Your task to perform on an android device: Show me popular games on the Play Store Image 0: 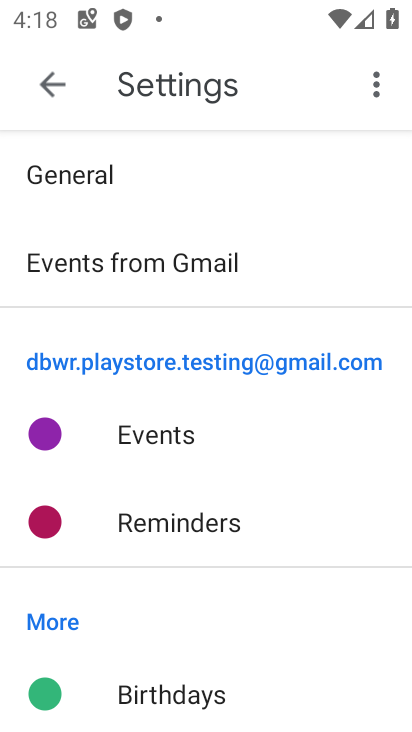
Step 0: press home button
Your task to perform on an android device: Show me popular games on the Play Store Image 1: 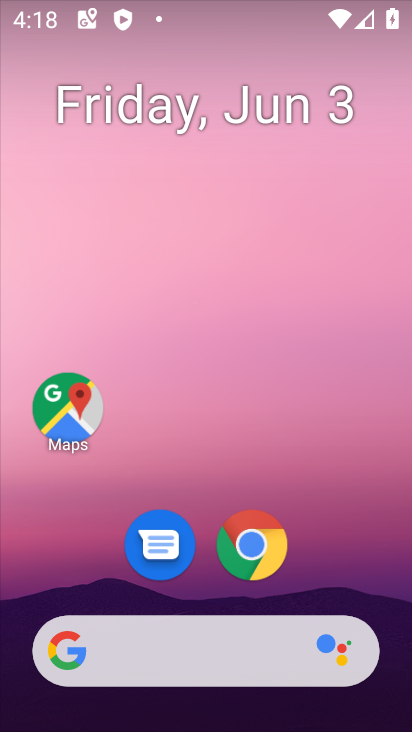
Step 1: drag from (102, 614) to (208, 84)
Your task to perform on an android device: Show me popular games on the Play Store Image 2: 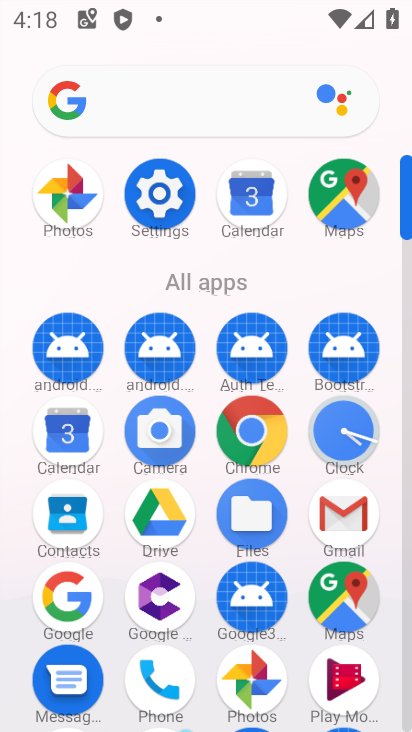
Step 2: drag from (173, 632) to (267, 300)
Your task to perform on an android device: Show me popular games on the Play Store Image 3: 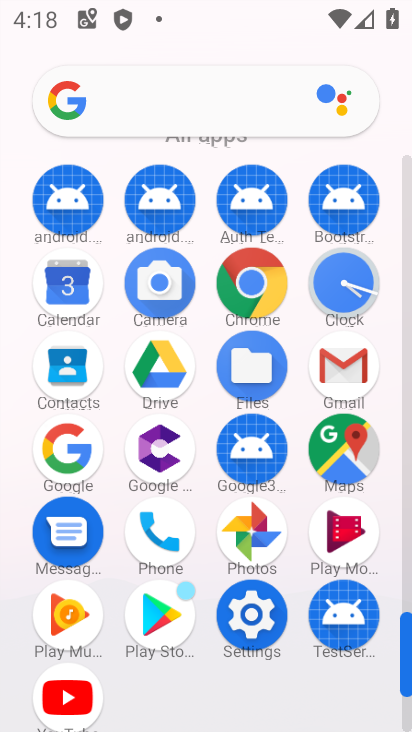
Step 3: click (144, 635)
Your task to perform on an android device: Show me popular games on the Play Store Image 4: 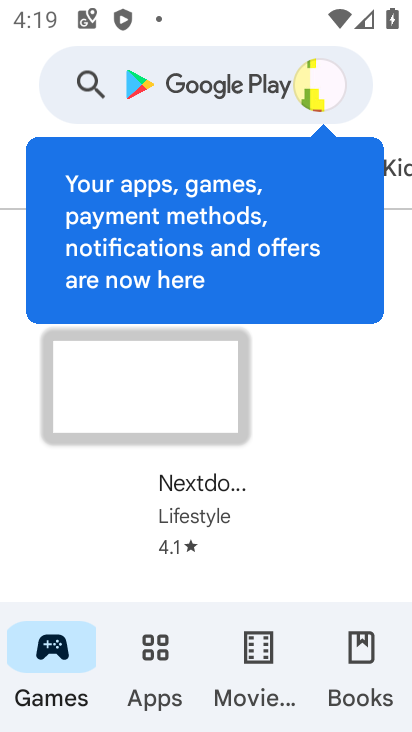
Step 4: drag from (143, 621) to (348, 91)
Your task to perform on an android device: Show me popular games on the Play Store Image 5: 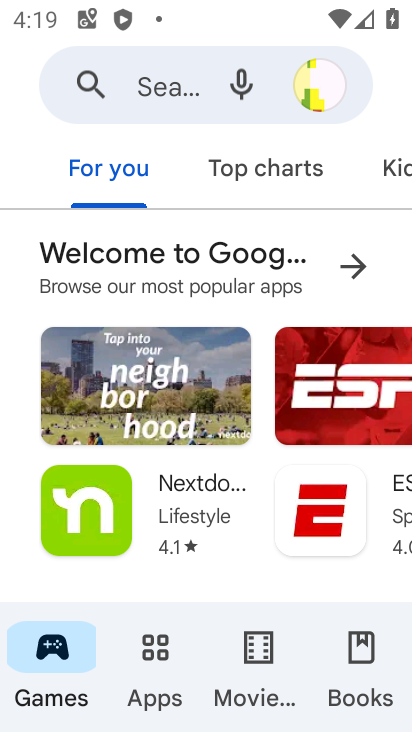
Step 5: drag from (177, 543) to (330, 43)
Your task to perform on an android device: Show me popular games on the Play Store Image 6: 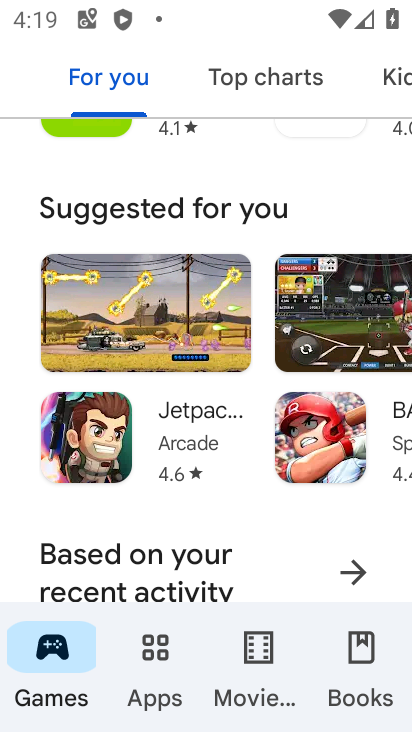
Step 6: drag from (68, 490) to (262, 19)
Your task to perform on an android device: Show me popular games on the Play Store Image 7: 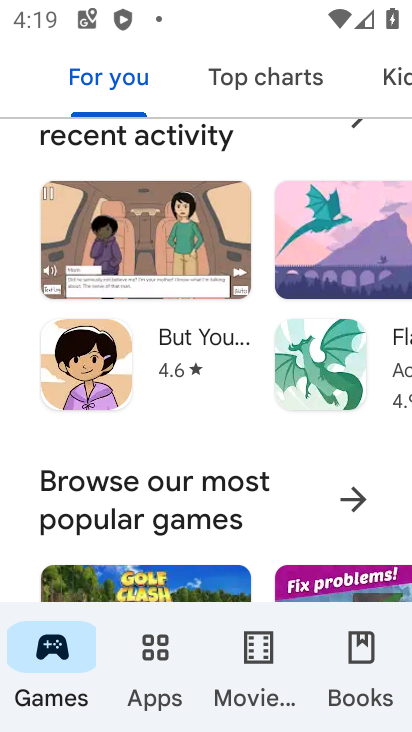
Step 7: drag from (122, 539) to (241, 249)
Your task to perform on an android device: Show me popular games on the Play Store Image 8: 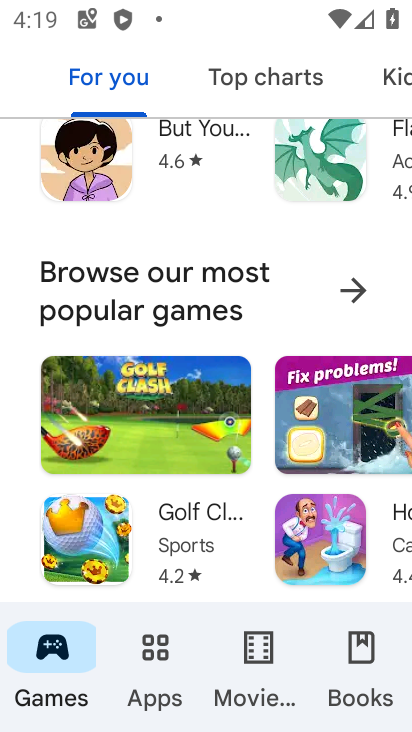
Step 8: click (349, 286)
Your task to perform on an android device: Show me popular games on the Play Store Image 9: 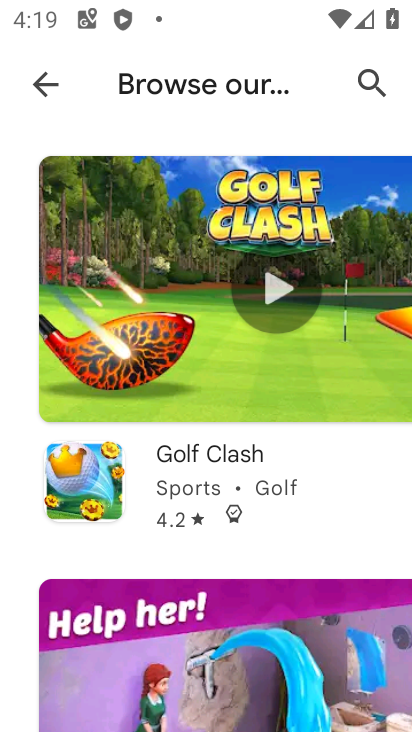
Step 9: task complete